Your task to perform on an android device: toggle notification dots Image 0: 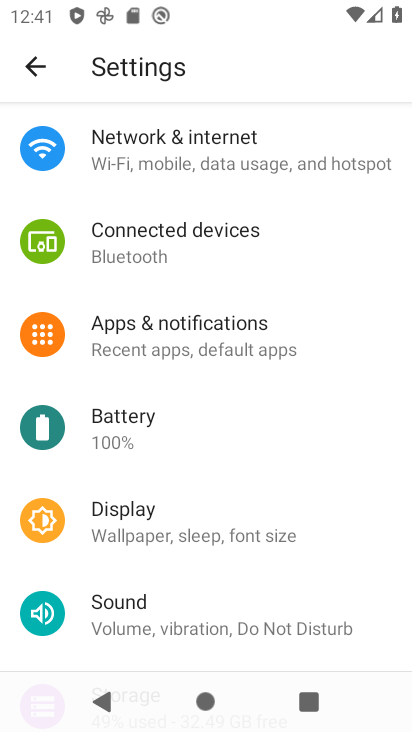
Step 0: press home button
Your task to perform on an android device: toggle notification dots Image 1: 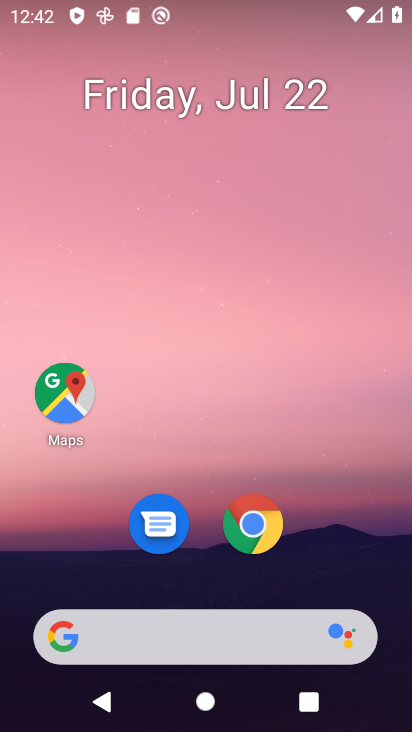
Step 1: drag from (224, 639) to (377, 29)
Your task to perform on an android device: toggle notification dots Image 2: 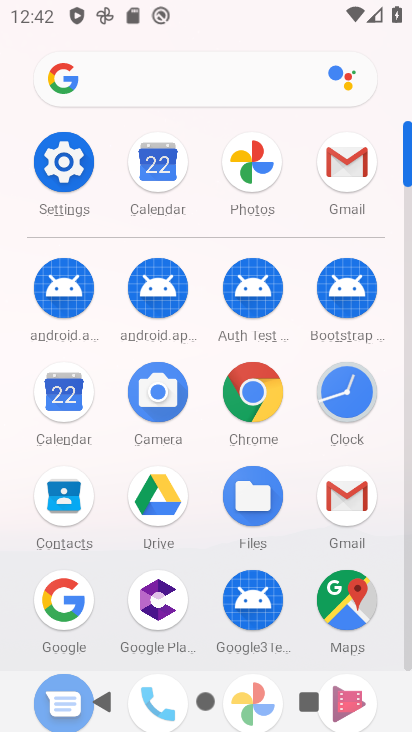
Step 2: click (63, 155)
Your task to perform on an android device: toggle notification dots Image 3: 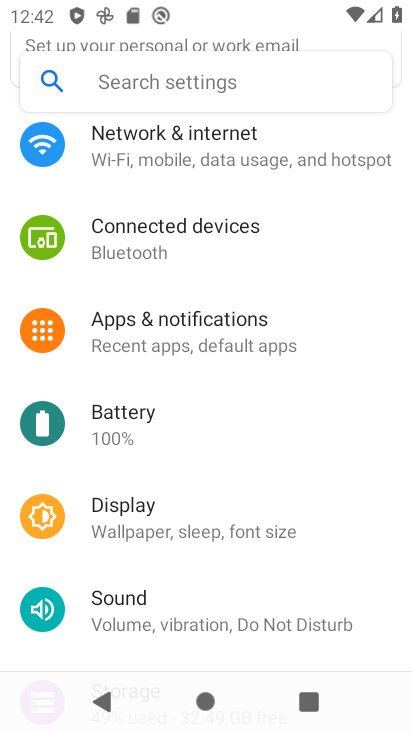
Step 3: click (193, 339)
Your task to perform on an android device: toggle notification dots Image 4: 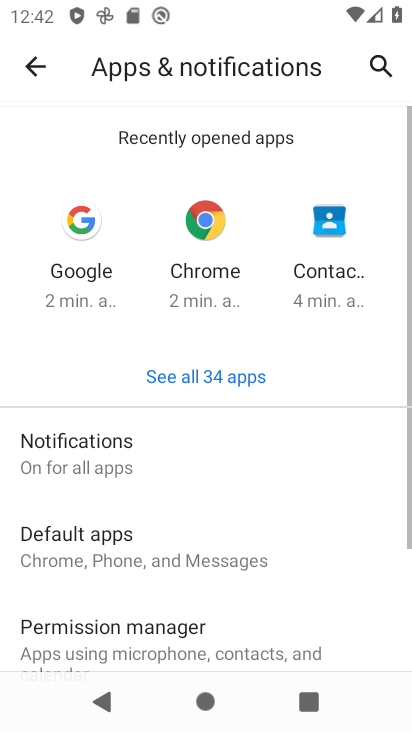
Step 4: click (125, 443)
Your task to perform on an android device: toggle notification dots Image 5: 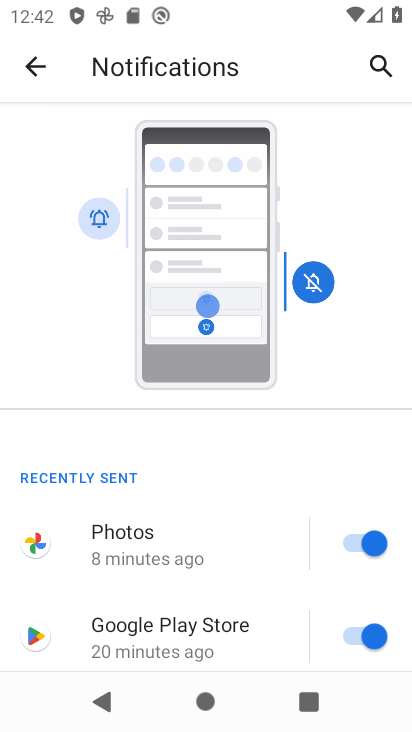
Step 5: drag from (245, 644) to (369, 76)
Your task to perform on an android device: toggle notification dots Image 6: 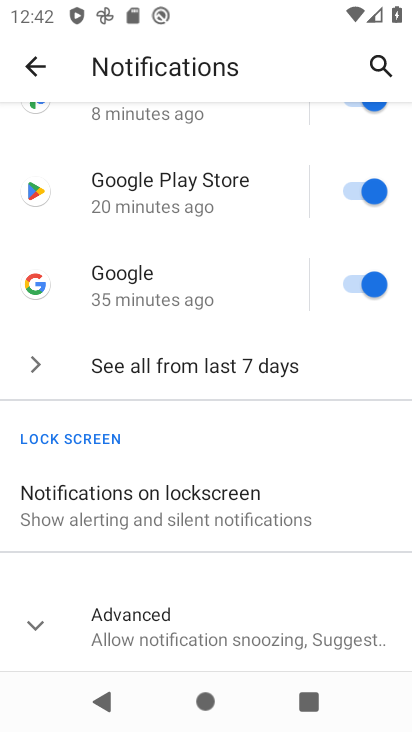
Step 6: click (226, 620)
Your task to perform on an android device: toggle notification dots Image 7: 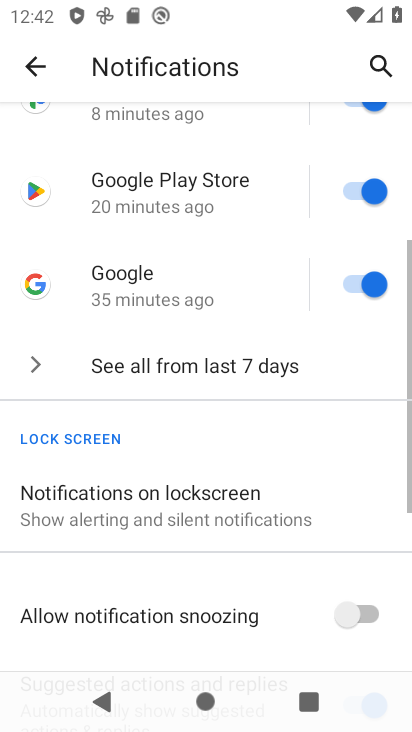
Step 7: drag from (213, 638) to (298, 75)
Your task to perform on an android device: toggle notification dots Image 8: 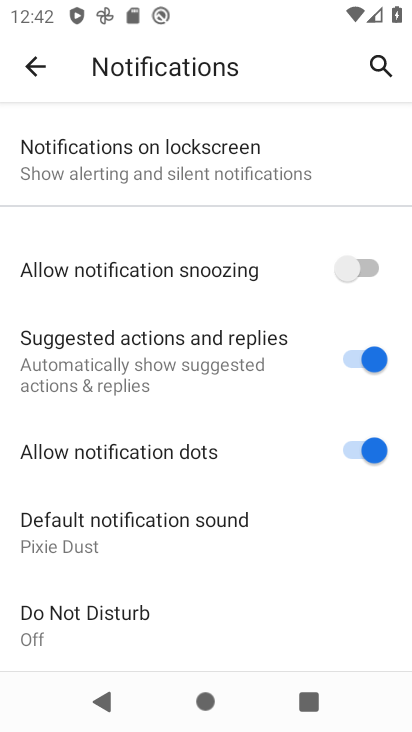
Step 8: click (358, 445)
Your task to perform on an android device: toggle notification dots Image 9: 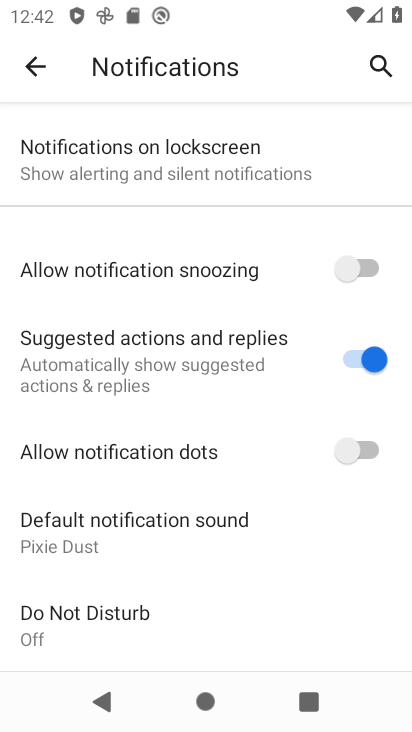
Step 9: task complete